Your task to perform on an android device: find snoozed emails in the gmail app Image 0: 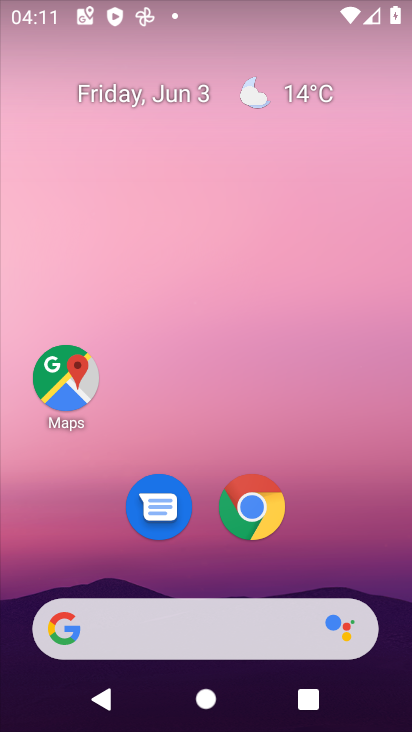
Step 0: drag from (235, 577) to (179, 129)
Your task to perform on an android device: find snoozed emails in the gmail app Image 1: 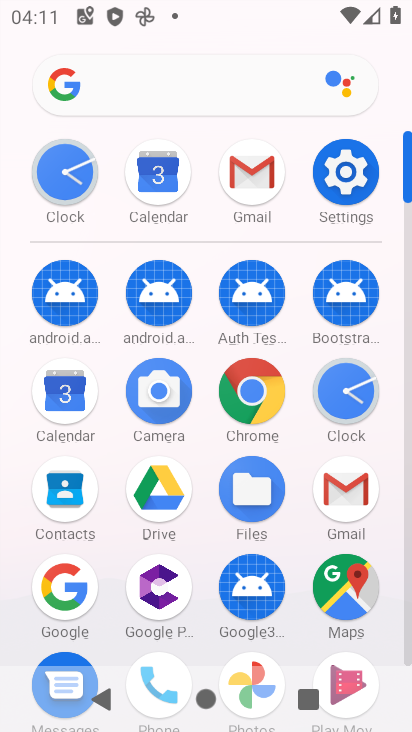
Step 1: click (249, 168)
Your task to perform on an android device: find snoozed emails in the gmail app Image 2: 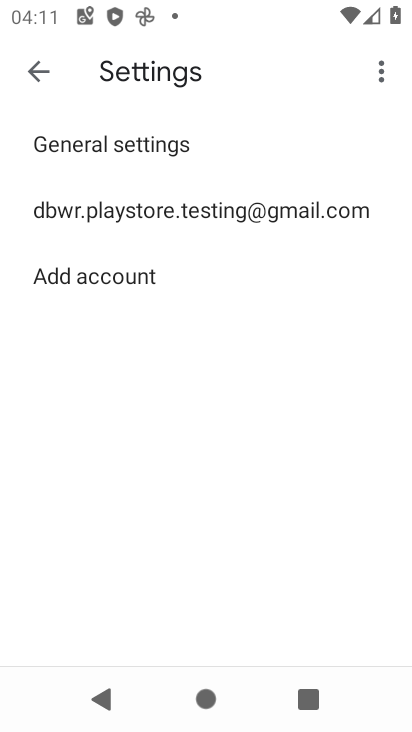
Step 2: click (37, 73)
Your task to perform on an android device: find snoozed emails in the gmail app Image 3: 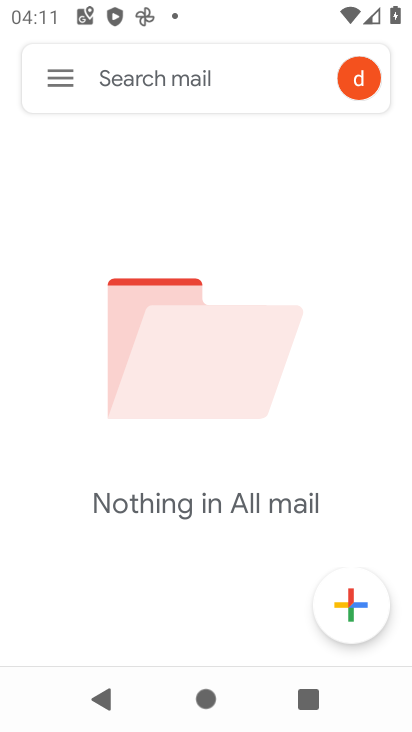
Step 3: click (58, 80)
Your task to perform on an android device: find snoozed emails in the gmail app Image 4: 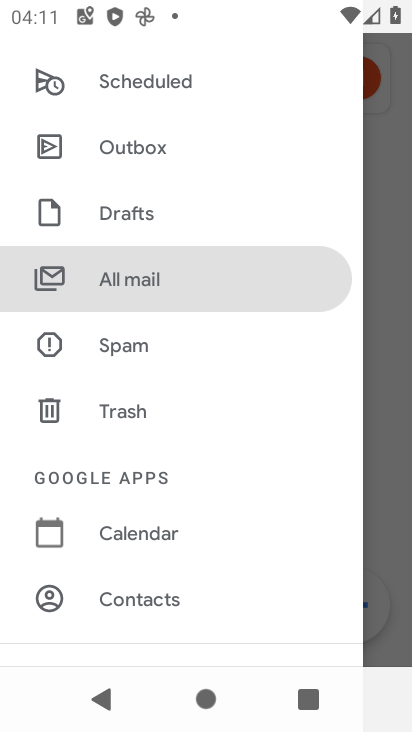
Step 4: drag from (218, 164) to (238, 571)
Your task to perform on an android device: find snoozed emails in the gmail app Image 5: 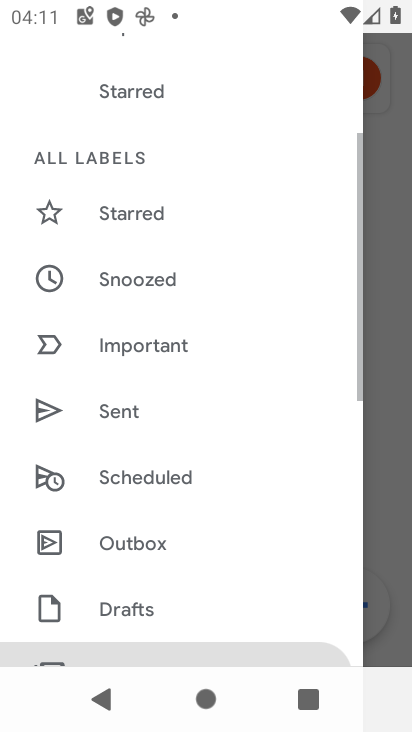
Step 5: click (141, 277)
Your task to perform on an android device: find snoozed emails in the gmail app Image 6: 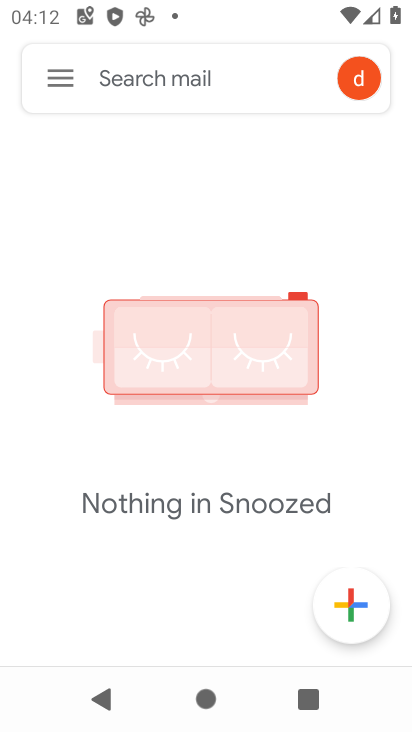
Step 6: task complete